Your task to perform on an android device: Empty the shopping cart on ebay. Add "alienware aurora" to the cart on ebay, then select checkout. Image 0: 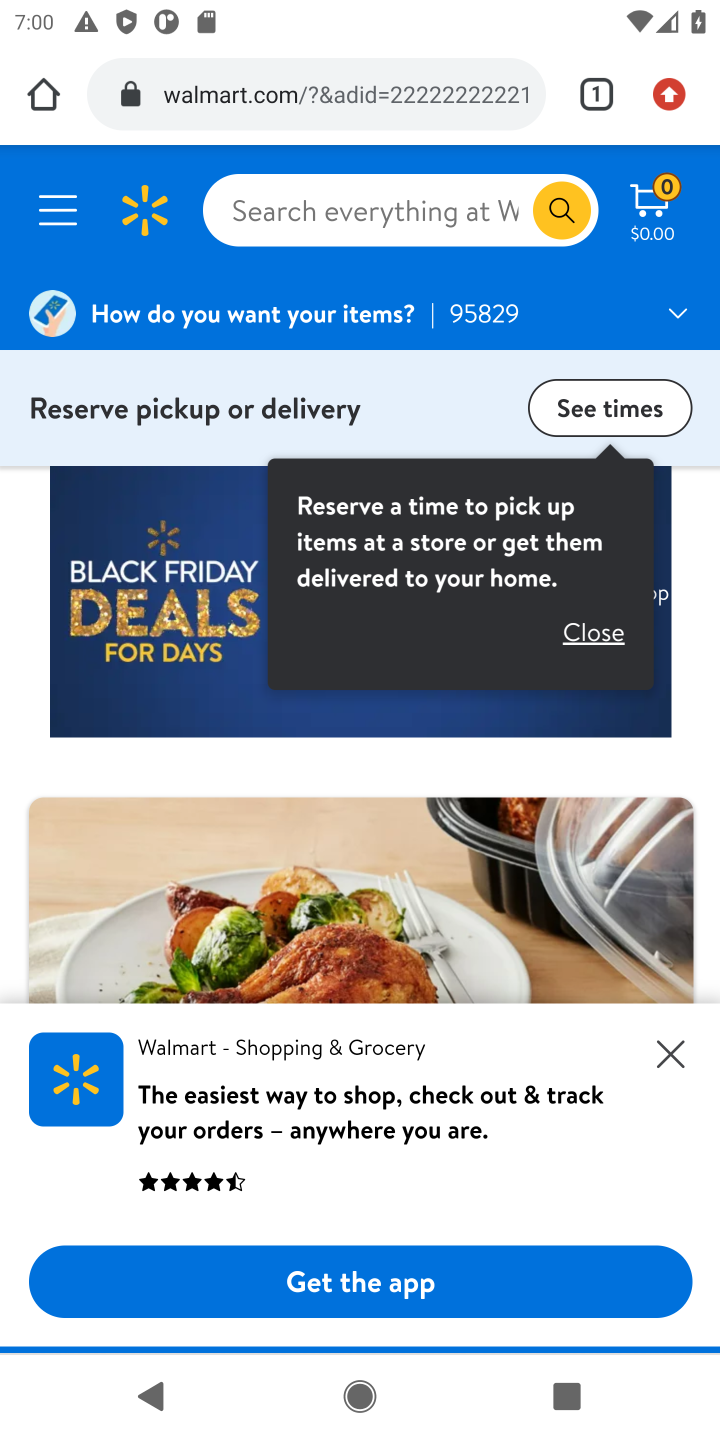
Step 0: click (658, 1072)
Your task to perform on an android device: Empty the shopping cart on ebay. Add "alienware aurora" to the cart on ebay, then select checkout. Image 1: 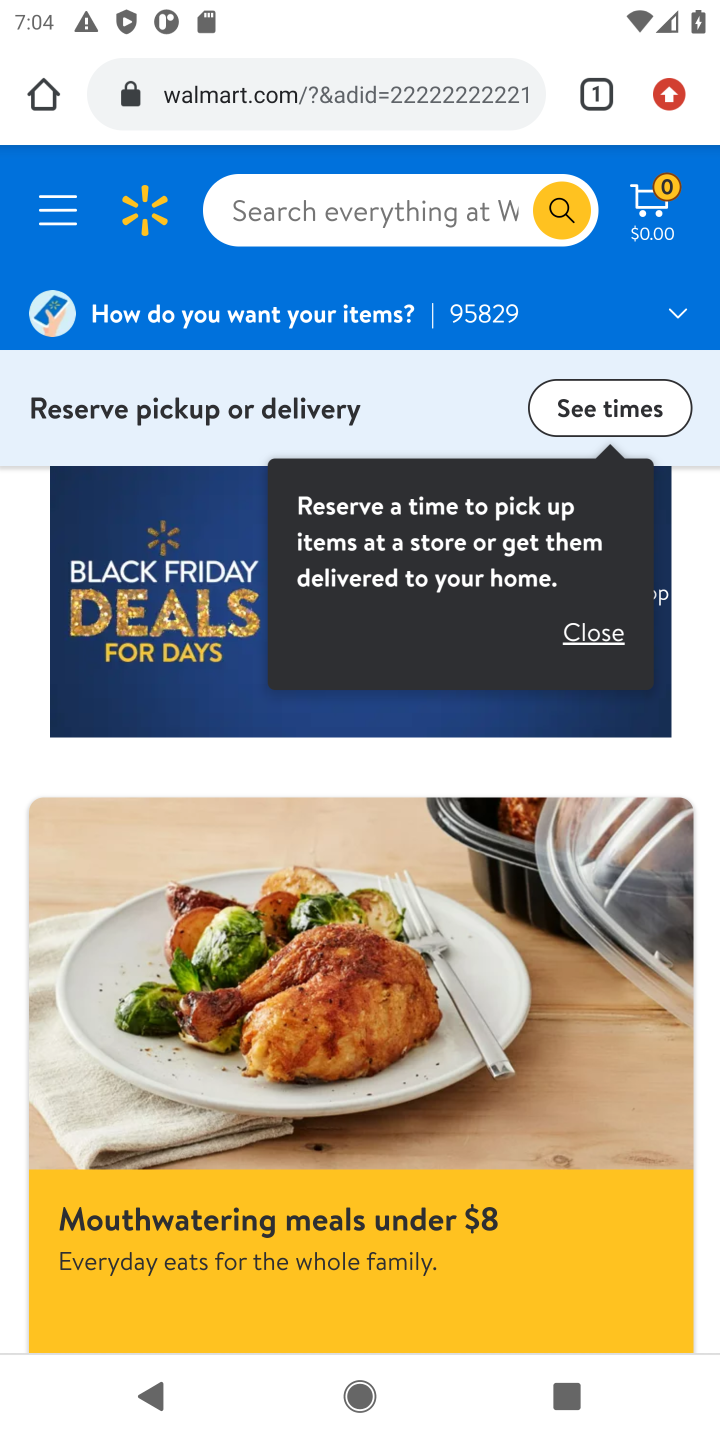
Step 1: task complete